Your task to perform on an android device: set the stopwatch Image 0: 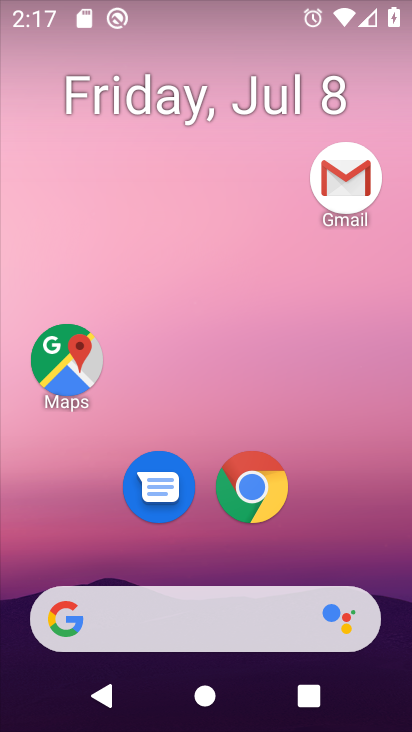
Step 0: drag from (331, 539) to (348, 137)
Your task to perform on an android device: set the stopwatch Image 1: 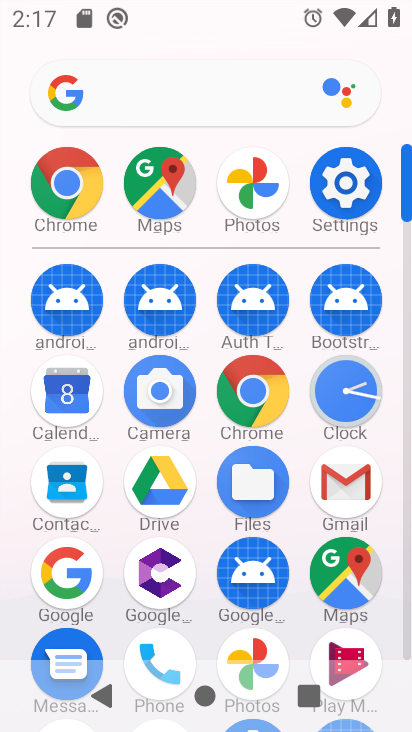
Step 1: click (356, 402)
Your task to perform on an android device: set the stopwatch Image 2: 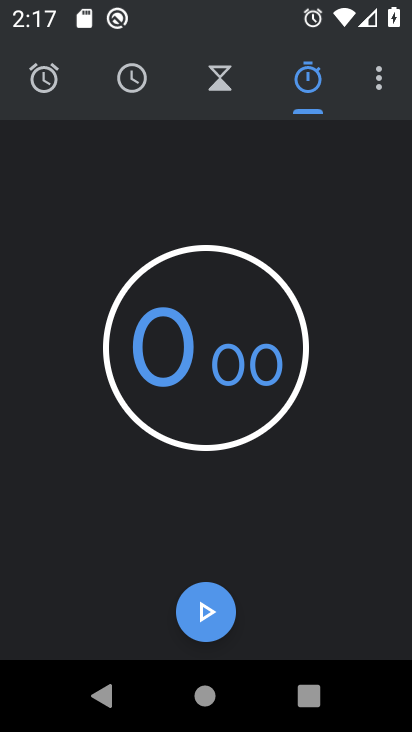
Step 2: click (377, 290)
Your task to perform on an android device: set the stopwatch Image 3: 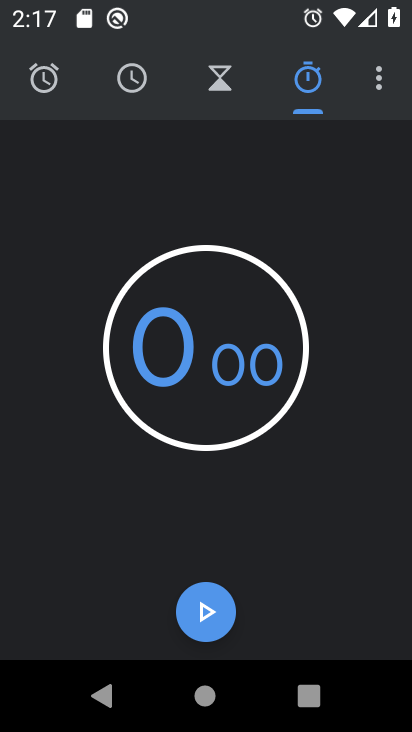
Step 3: click (199, 617)
Your task to perform on an android device: set the stopwatch Image 4: 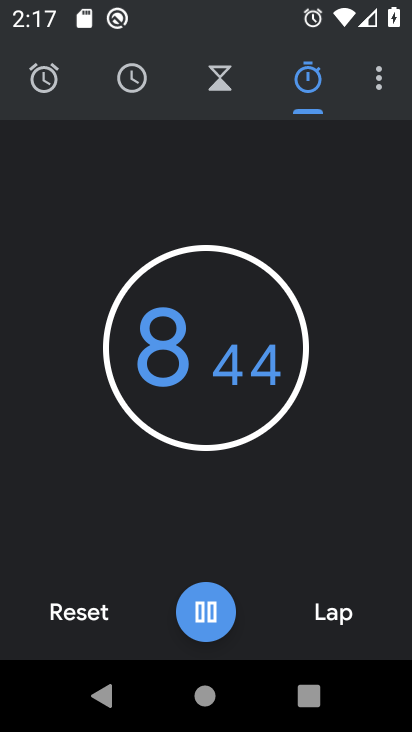
Step 4: task complete